Your task to perform on an android device: delete the emails in spam in the gmail app Image 0: 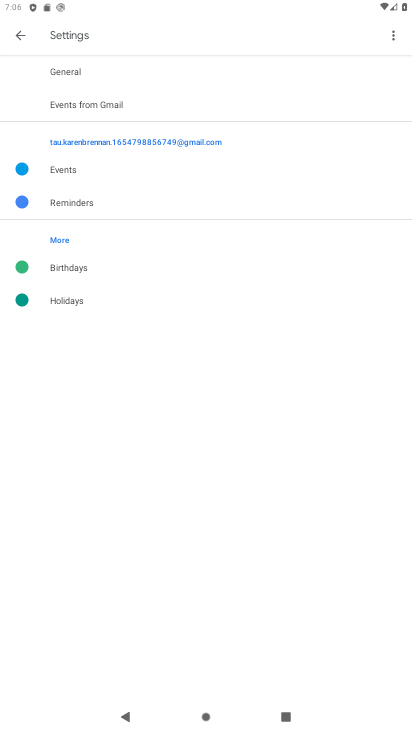
Step 0: press home button
Your task to perform on an android device: delete the emails in spam in the gmail app Image 1: 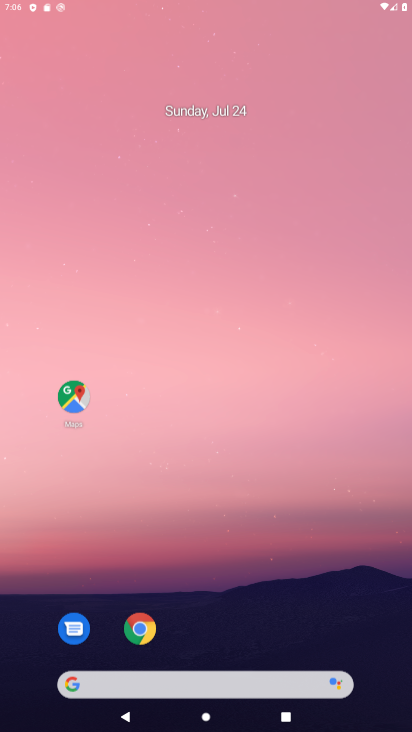
Step 1: drag from (399, 675) to (179, 16)
Your task to perform on an android device: delete the emails in spam in the gmail app Image 2: 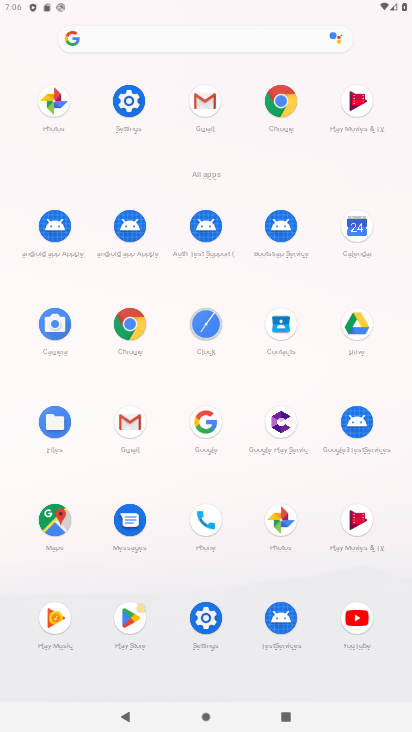
Step 2: click (129, 427)
Your task to perform on an android device: delete the emails in spam in the gmail app Image 3: 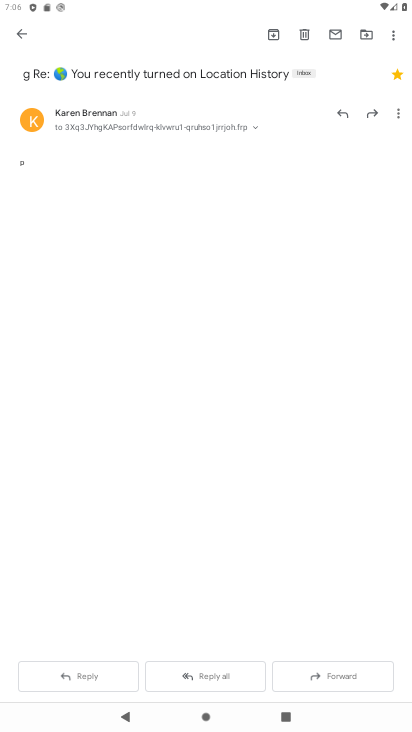
Step 3: click (115, 124)
Your task to perform on an android device: delete the emails in spam in the gmail app Image 4: 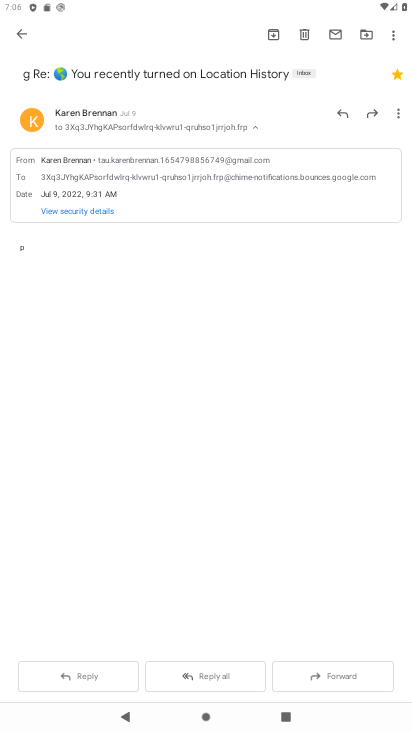
Step 4: click (395, 34)
Your task to perform on an android device: delete the emails in spam in the gmail app Image 5: 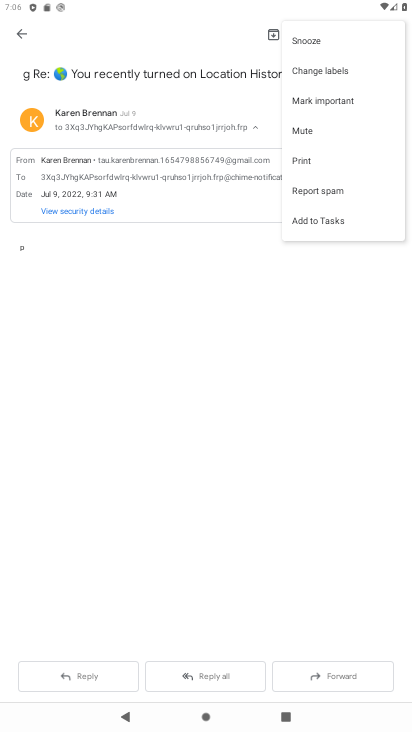
Step 5: click (264, 296)
Your task to perform on an android device: delete the emails in spam in the gmail app Image 6: 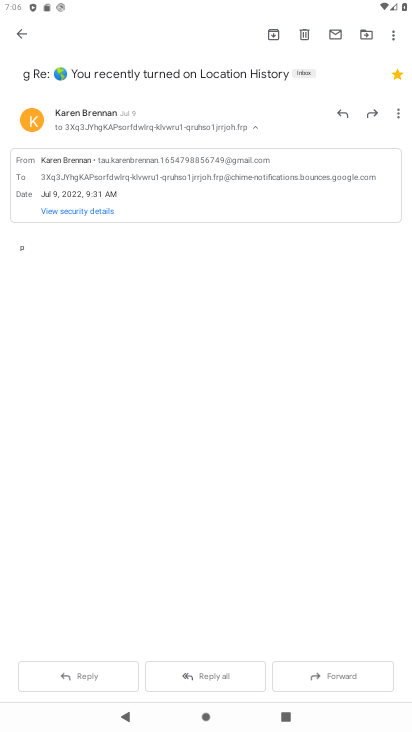
Step 6: click (303, 30)
Your task to perform on an android device: delete the emails in spam in the gmail app Image 7: 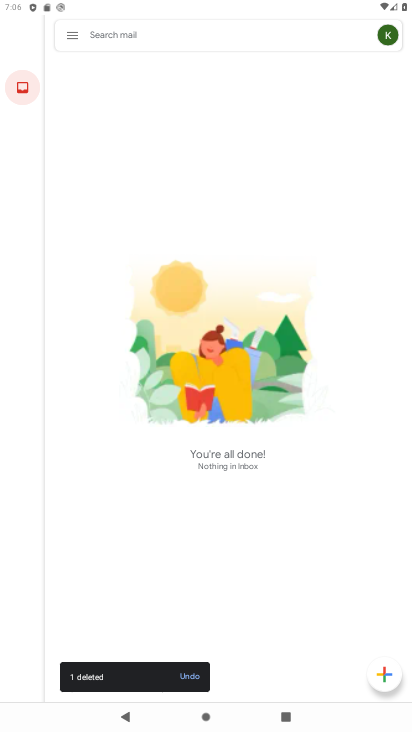
Step 7: task complete